Your task to perform on an android device: find which apps use the phone's location Image 0: 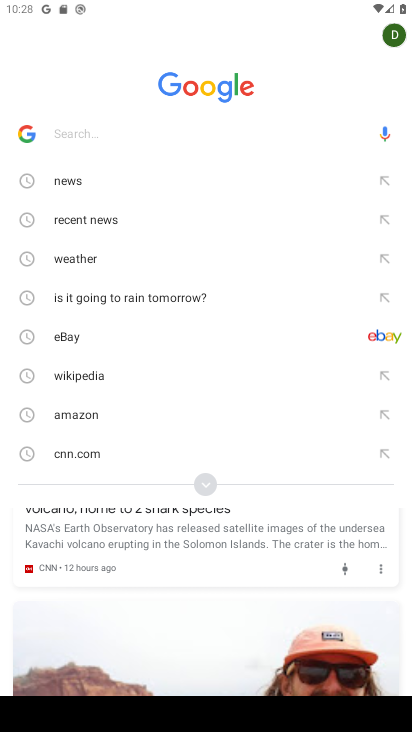
Step 0: press home button
Your task to perform on an android device: find which apps use the phone's location Image 1: 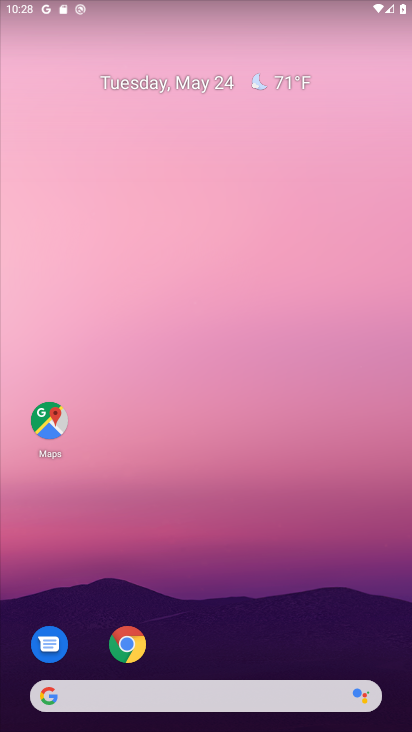
Step 1: drag from (243, 596) to (146, 56)
Your task to perform on an android device: find which apps use the phone's location Image 2: 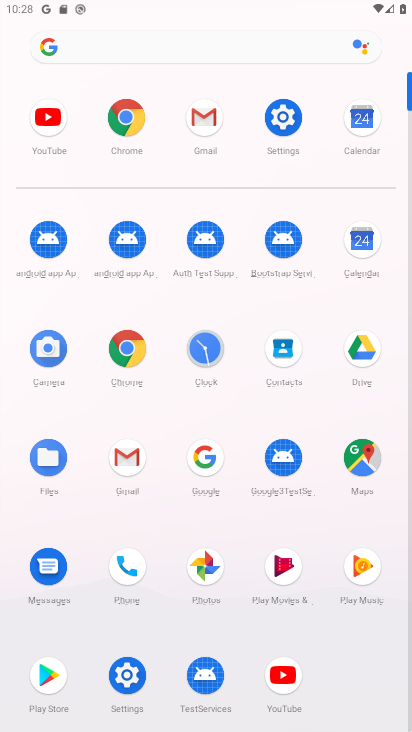
Step 2: click (290, 123)
Your task to perform on an android device: find which apps use the phone's location Image 3: 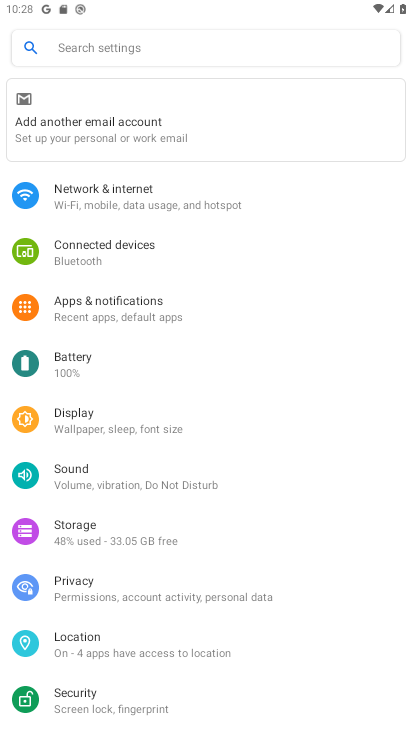
Step 3: click (69, 634)
Your task to perform on an android device: find which apps use the phone's location Image 4: 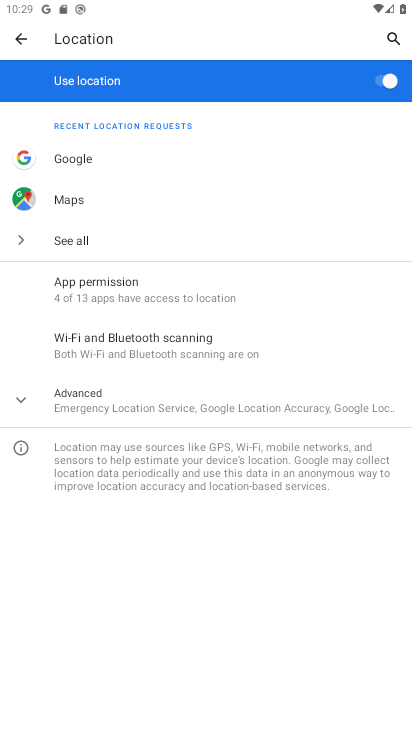
Step 4: click (83, 244)
Your task to perform on an android device: find which apps use the phone's location Image 5: 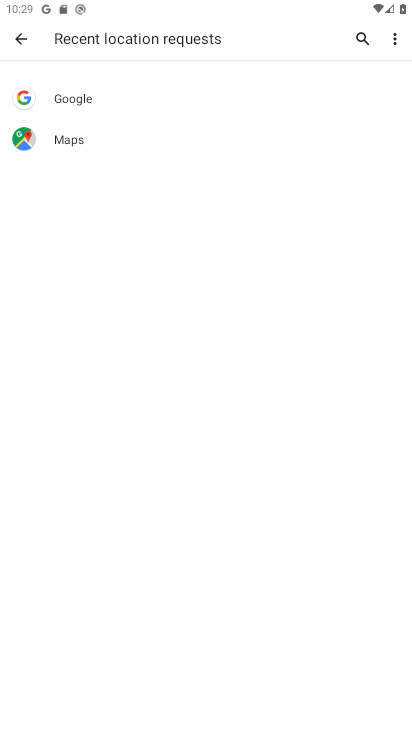
Step 5: task complete